Your task to perform on an android device: check android version Image 0: 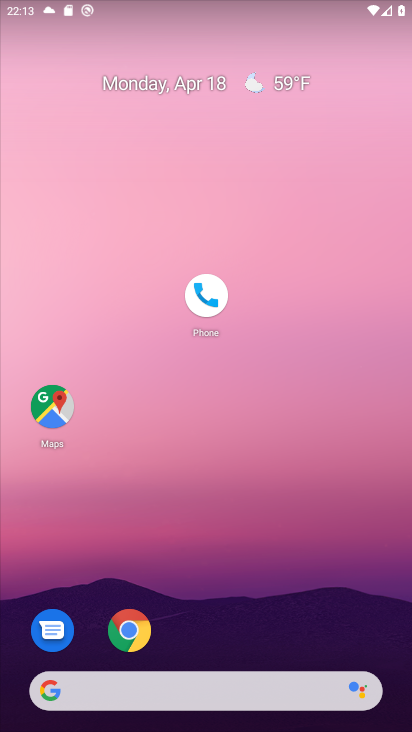
Step 0: drag from (275, 526) to (284, 173)
Your task to perform on an android device: check android version Image 1: 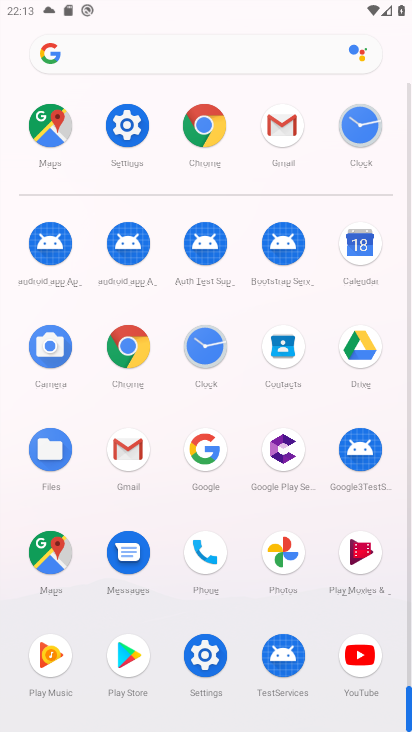
Step 1: click (133, 125)
Your task to perform on an android device: check android version Image 2: 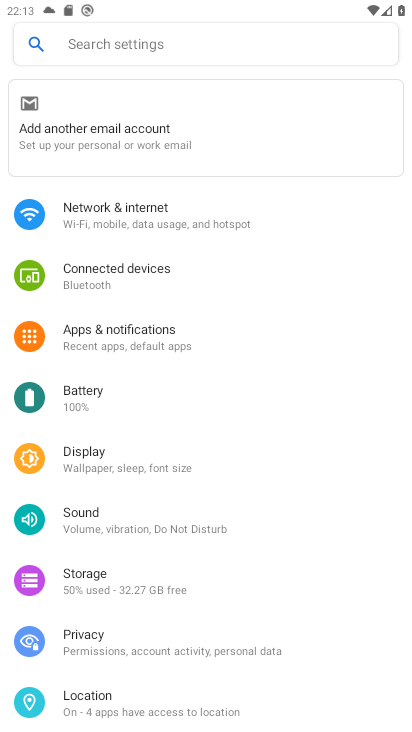
Step 2: drag from (280, 634) to (284, 219)
Your task to perform on an android device: check android version Image 3: 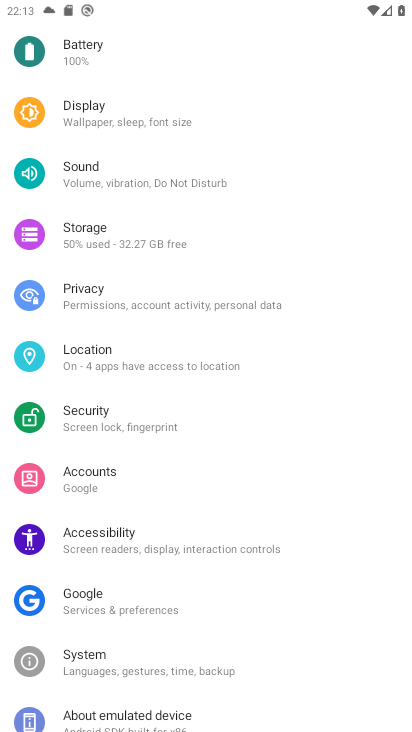
Step 3: drag from (277, 663) to (287, 156)
Your task to perform on an android device: check android version Image 4: 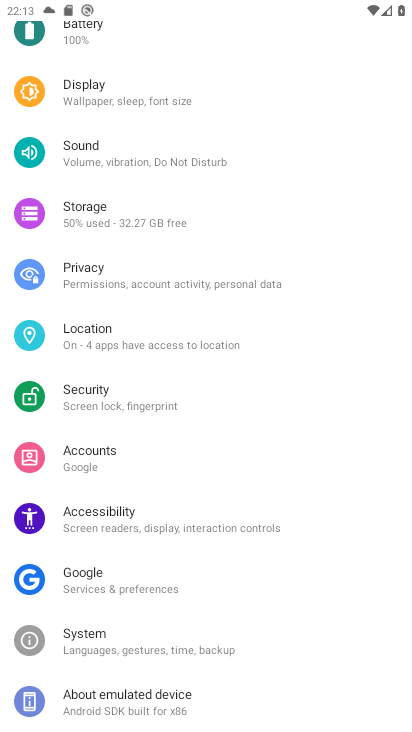
Step 4: click (162, 696)
Your task to perform on an android device: check android version Image 5: 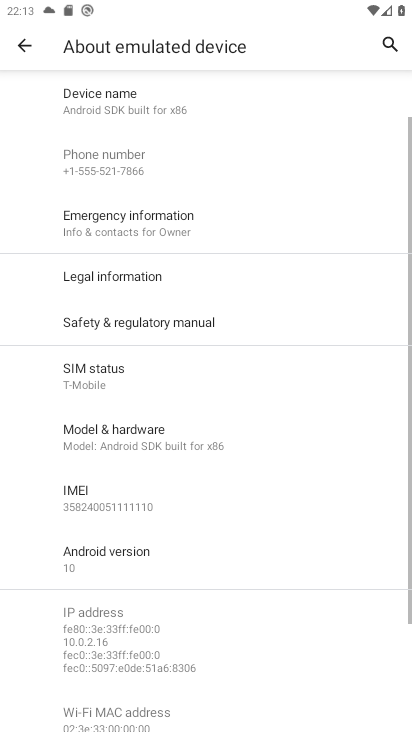
Step 5: drag from (268, 604) to (319, 205)
Your task to perform on an android device: check android version Image 6: 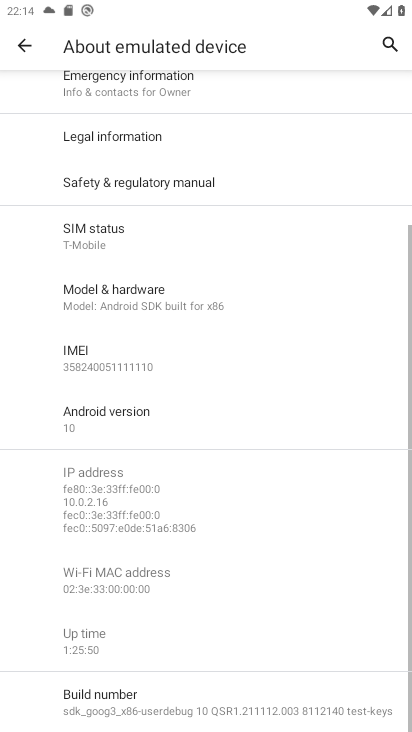
Step 6: click (148, 413)
Your task to perform on an android device: check android version Image 7: 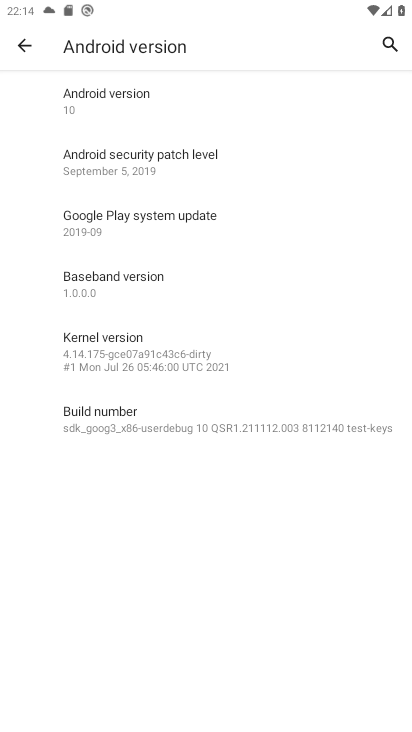
Step 7: task complete